Your task to perform on an android device: toggle translation in the chrome app Image 0: 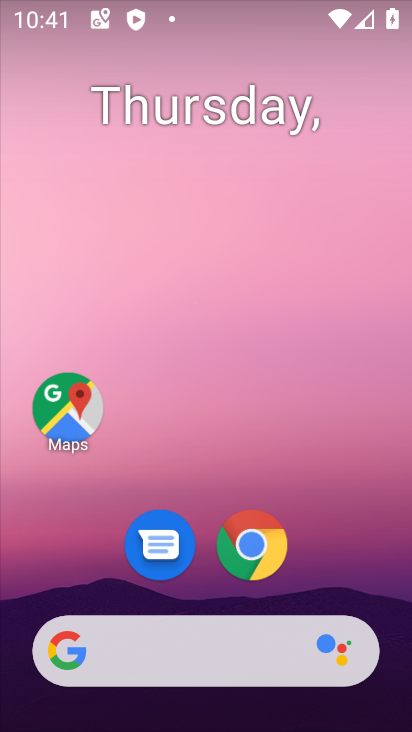
Step 0: click (252, 546)
Your task to perform on an android device: toggle translation in the chrome app Image 1: 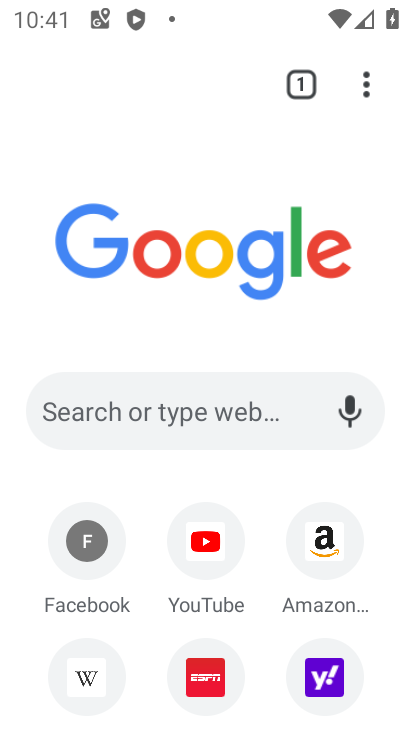
Step 1: click (366, 86)
Your task to perform on an android device: toggle translation in the chrome app Image 2: 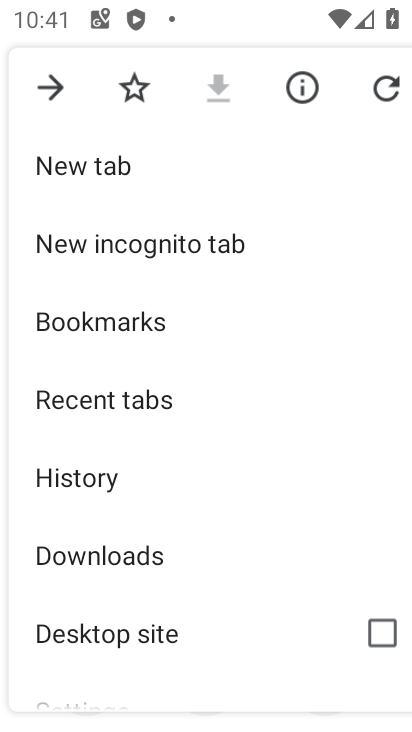
Step 2: drag from (99, 503) to (124, 357)
Your task to perform on an android device: toggle translation in the chrome app Image 3: 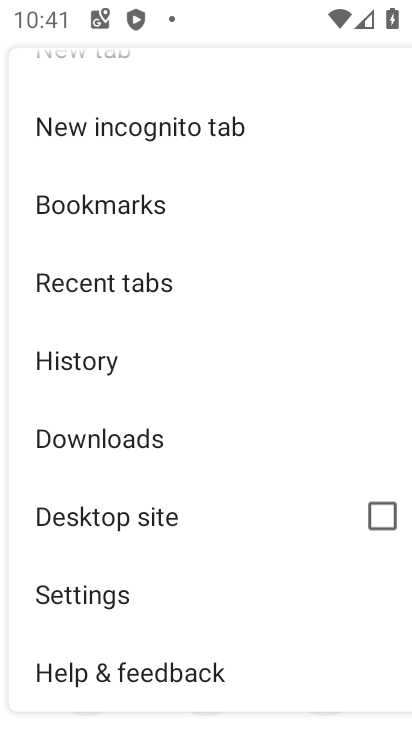
Step 3: click (82, 601)
Your task to perform on an android device: toggle translation in the chrome app Image 4: 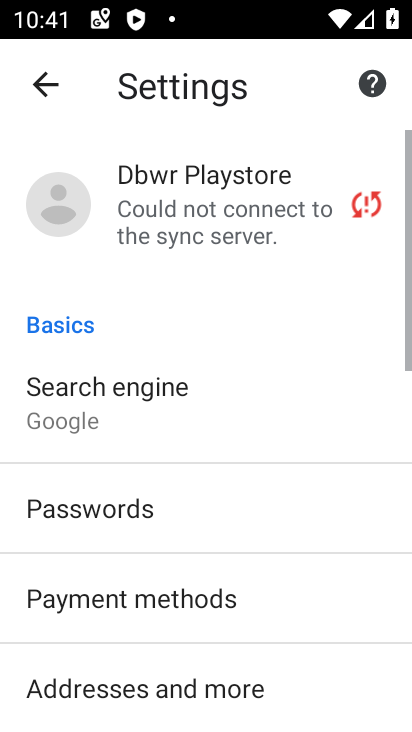
Step 4: drag from (115, 579) to (168, 458)
Your task to perform on an android device: toggle translation in the chrome app Image 5: 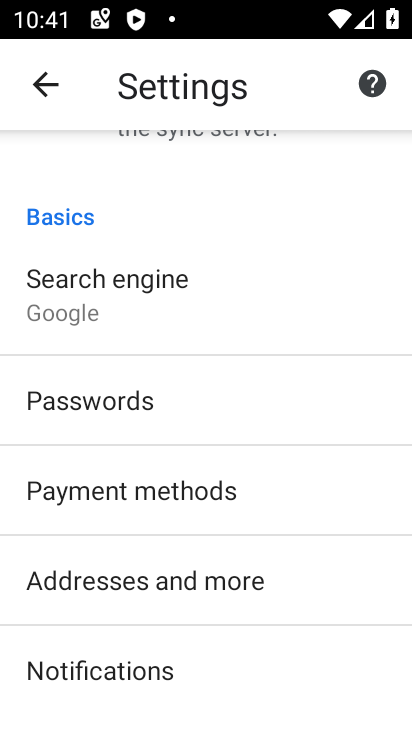
Step 5: drag from (118, 552) to (182, 446)
Your task to perform on an android device: toggle translation in the chrome app Image 6: 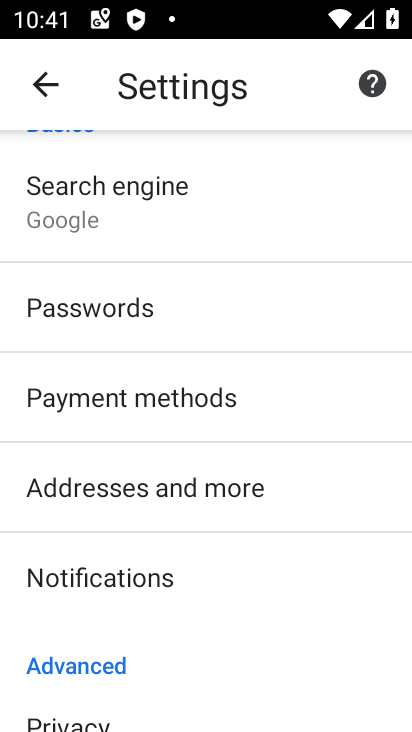
Step 6: drag from (105, 543) to (164, 431)
Your task to perform on an android device: toggle translation in the chrome app Image 7: 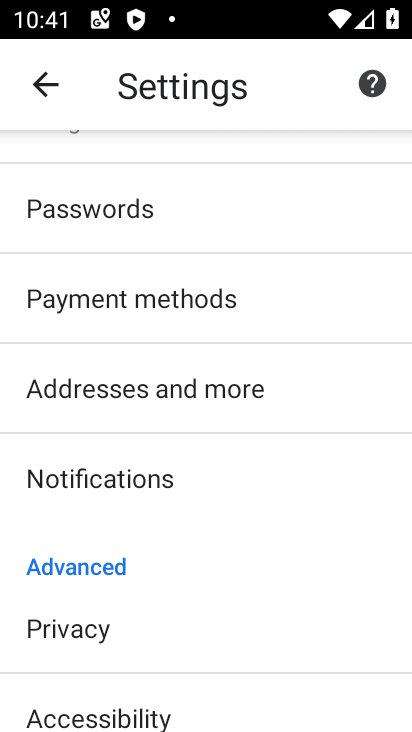
Step 7: drag from (79, 528) to (175, 411)
Your task to perform on an android device: toggle translation in the chrome app Image 8: 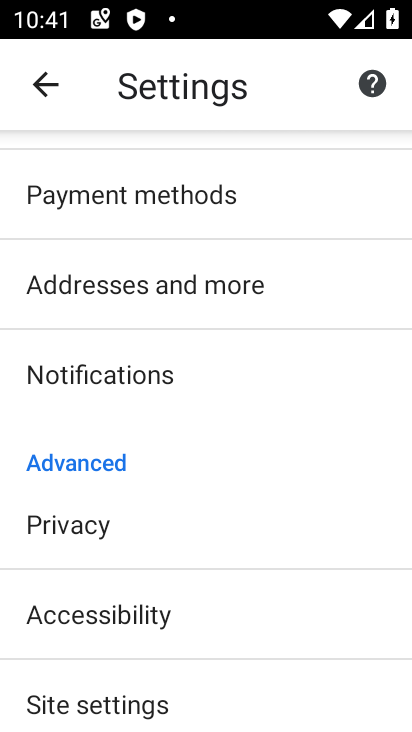
Step 8: drag from (69, 589) to (173, 465)
Your task to perform on an android device: toggle translation in the chrome app Image 9: 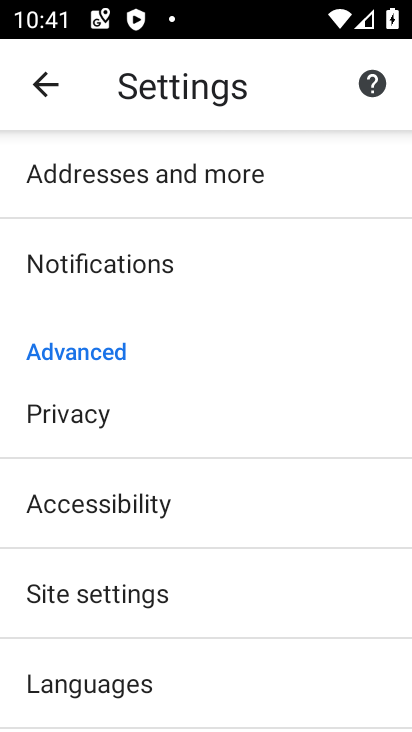
Step 9: drag from (88, 610) to (197, 489)
Your task to perform on an android device: toggle translation in the chrome app Image 10: 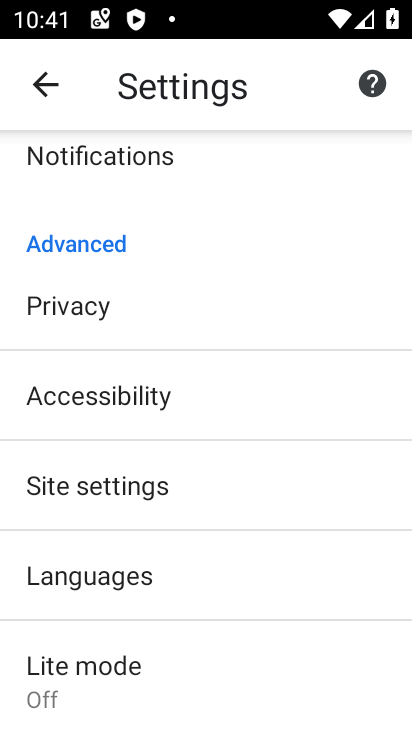
Step 10: click (103, 582)
Your task to perform on an android device: toggle translation in the chrome app Image 11: 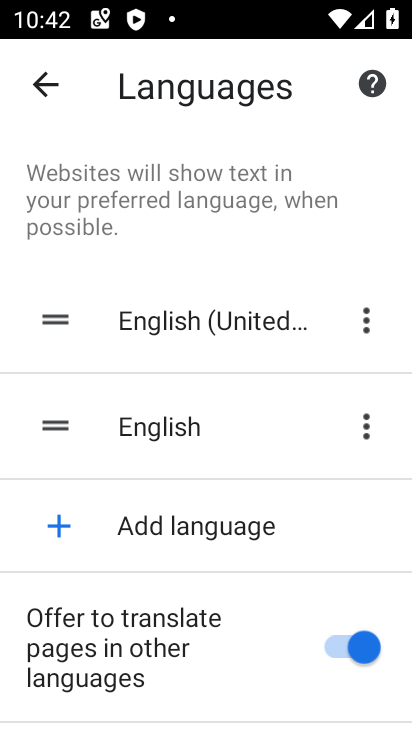
Step 11: click (359, 633)
Your task to perform on an android device: toggle translation in the chrome app Image 12: 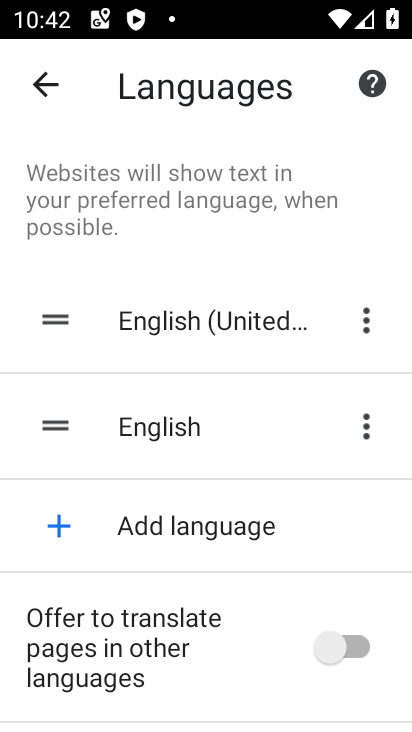
Step 12: task complete